Your task to perform on an android device: Go to privacy settings Image 0: 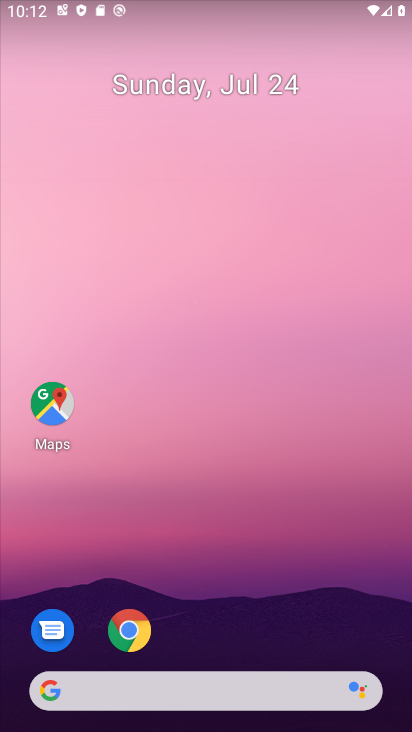
Step 0: drag from (186, 639) to (198, 72)
Your task to perform on an android device: Go to privacy settings Image 1: 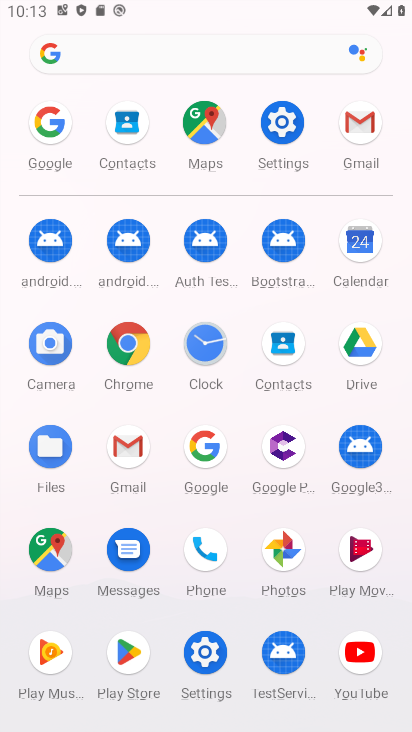
Step 1: click (287, 122)
Your task to perform on an android device: Go to privacy settings Image 2: 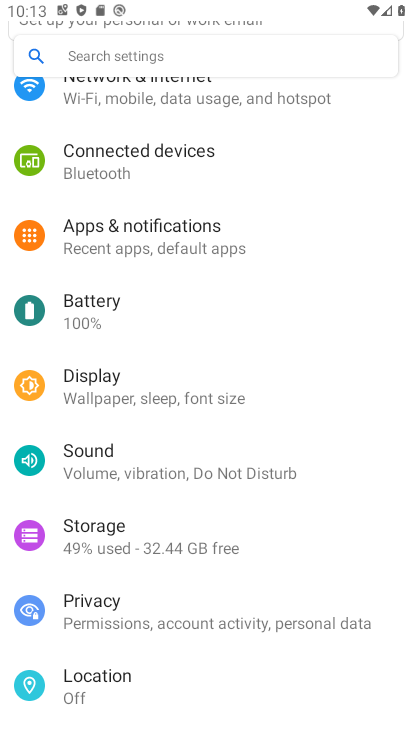
Step 2: drag from (232, 246) to (235, 563)
Your task to perform on an android device: Go to privacy settings Image 3: 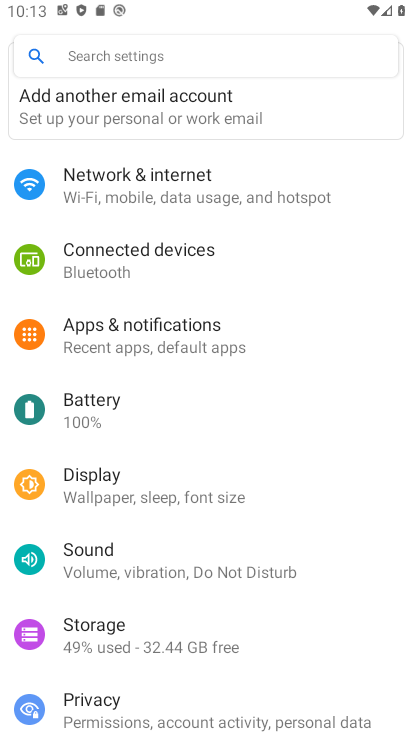
Step 3: click (179, 698)
Your task to perform on an android device: Go to privacy settings Image 4: 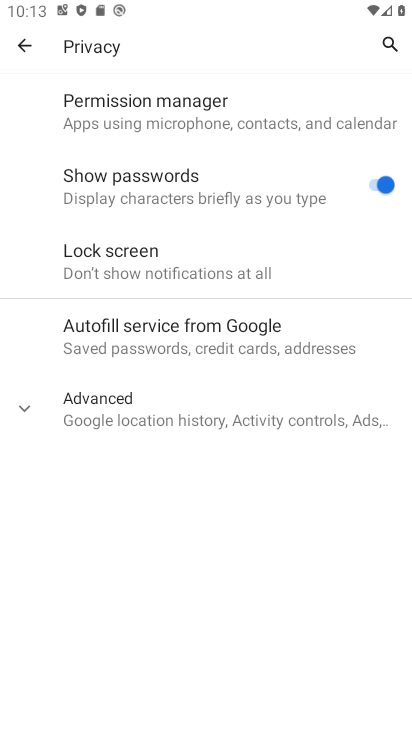
Step 4: task complete